Your task to perform on an android device: toggle airplane mode Image 0: 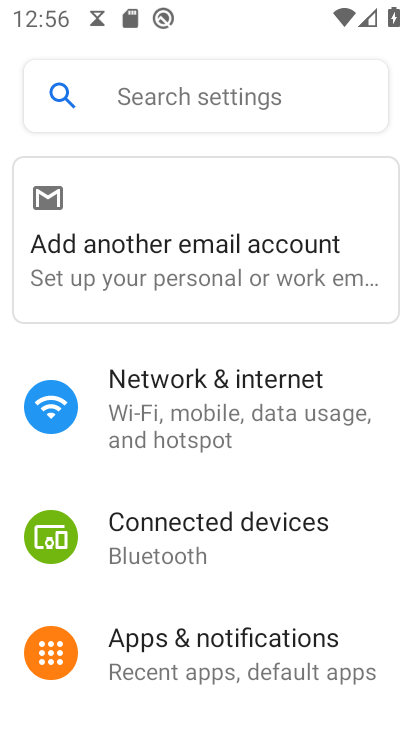
Step 0: click (179, 421)
Your task to perform on an android device: toggle airplane mode Image 1: 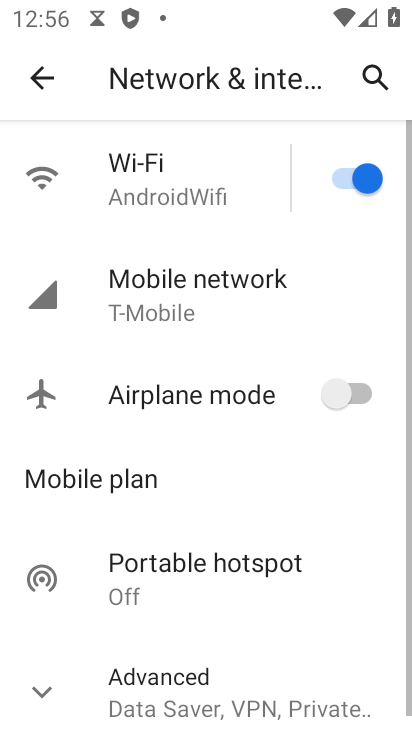
Step 1: click (352, 395)
Your task to perform on an android device: toggle airplane mode Image 2: 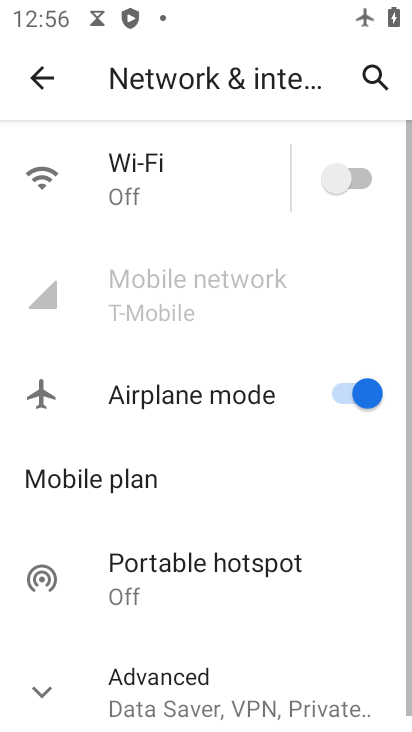
Step 2: task complete